Your task to perform on an android device: turn on improve location accuracy Image 0: 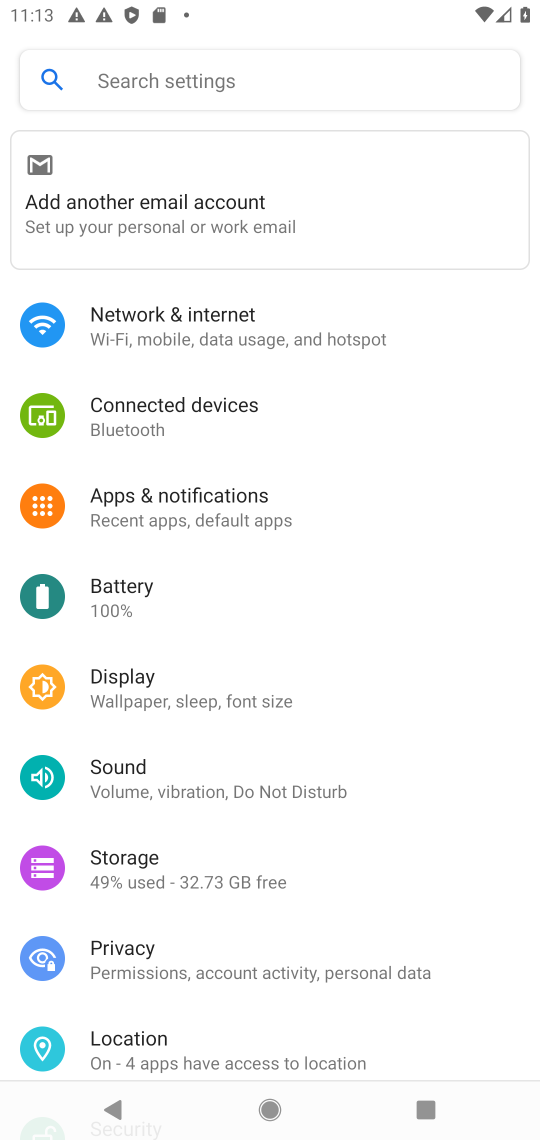
Step 0: click (154, 1037)
Your task to perform on an android device: turn on improve location accuracy Image 1: 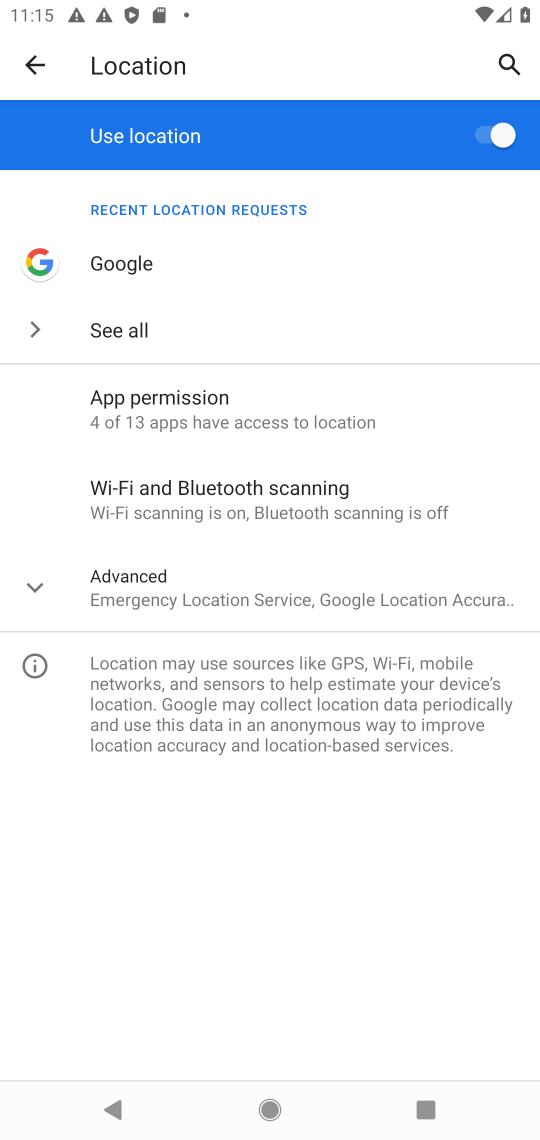
Step 1: click (24, 592)
Your task to perform on an android device: turn on improve location accuracy Image 2: 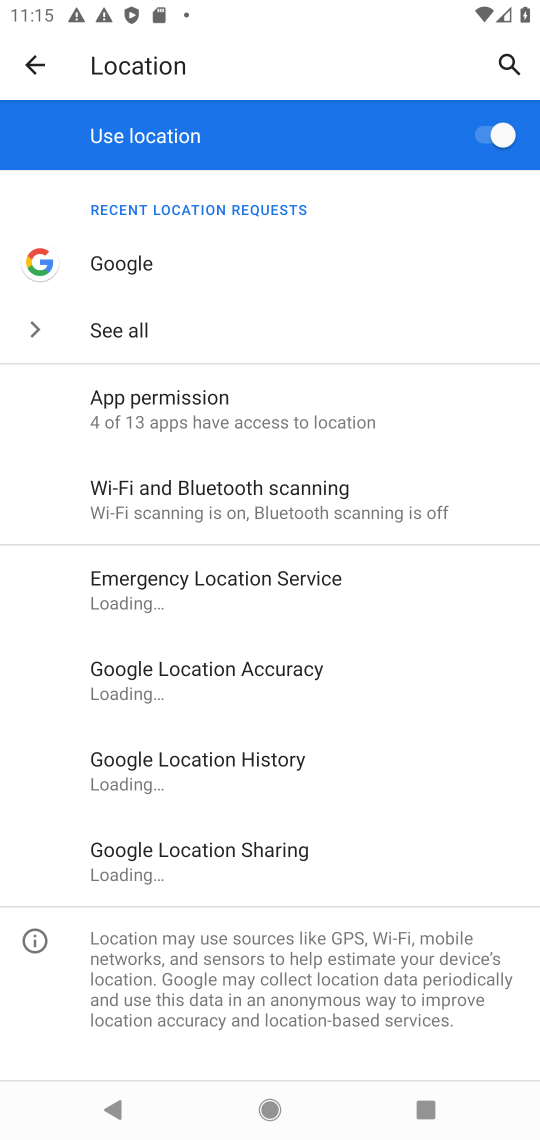
Step 2: click (240, 689)
Your task to perform on an android device: turn on improve location accuracy Image 3: 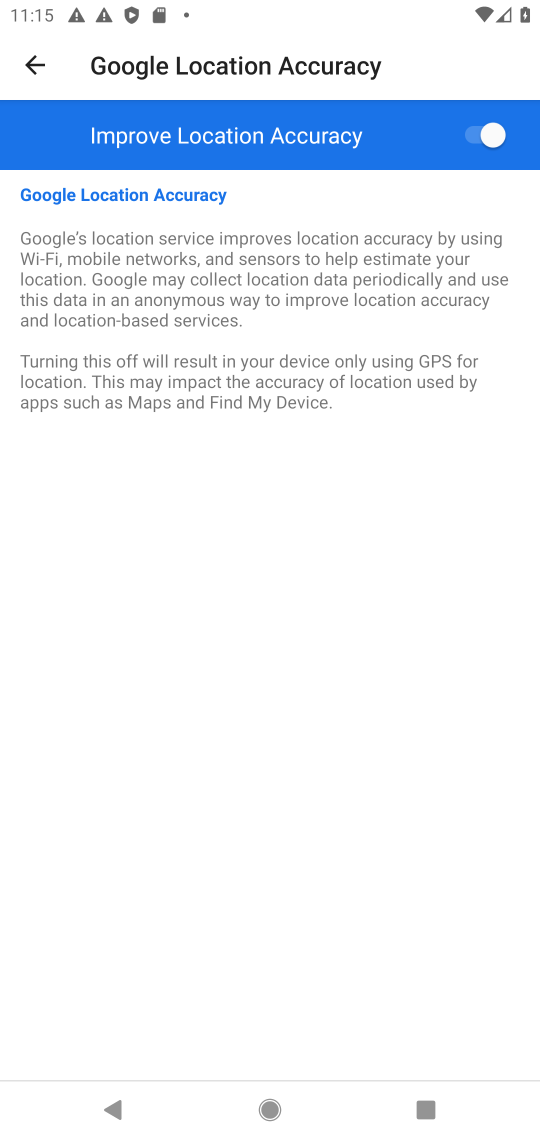
Step 3: task complete